Your task to perform on an android device: Open Google Chrome and click the shortcut for Amazon.com Image 0: 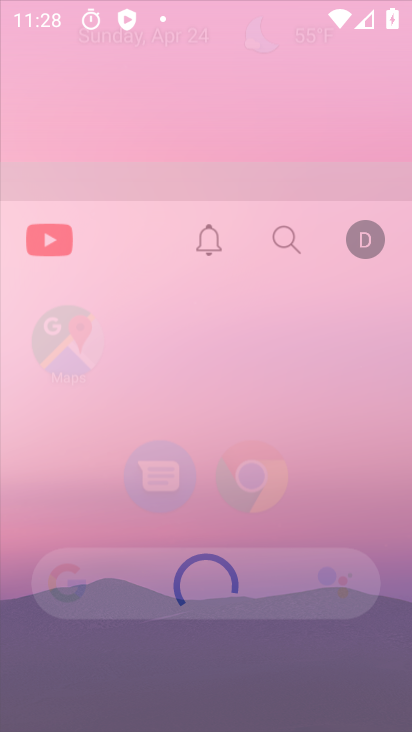
Step 0: click (296, 131)
Your task to perform on an android device: Open Google Chrome and click the shortcut for Amazon.com Image 1: 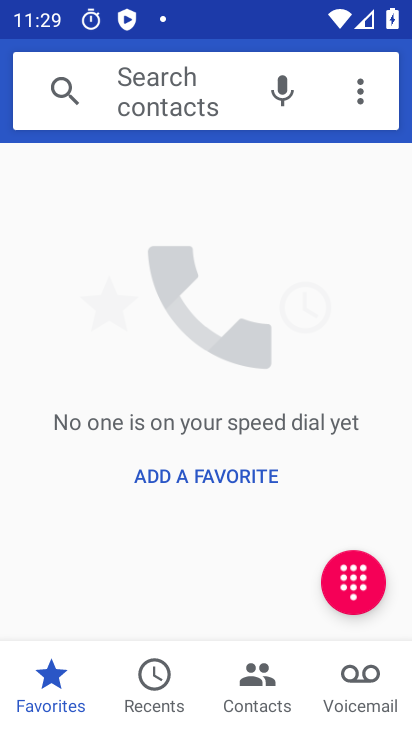
Step 1: press home button
Your task to perform on an android device: Open Google Chrome and click the shortcut for Amazon.com Image 2: 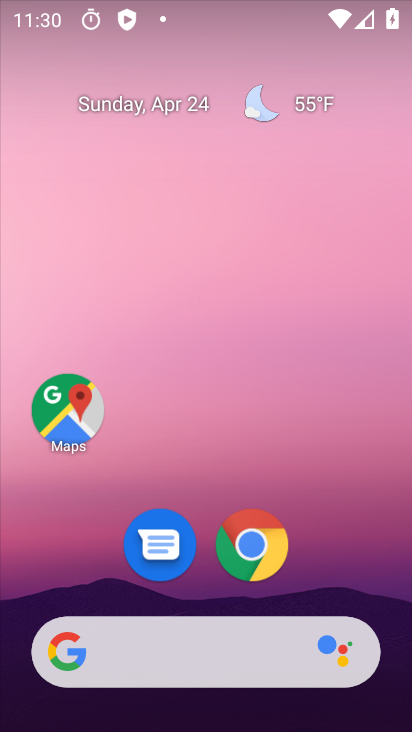
Step 2: drag from (277, 504) to (236, 239)
Your task to perform on an android device: Open Google Chrome and click the shortcut for Amazon.com Image 3: 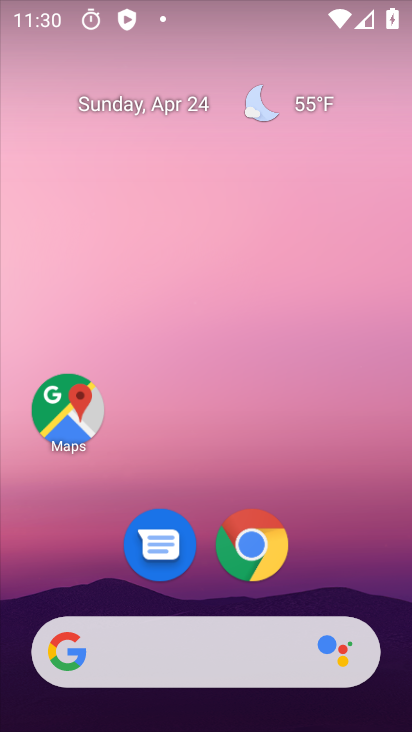
Step 3: drag from (232, 708) to (156, 53)
Your task to perform on an android device: Open Google Chrome and click the shortcut for Amazon.com Image 4: 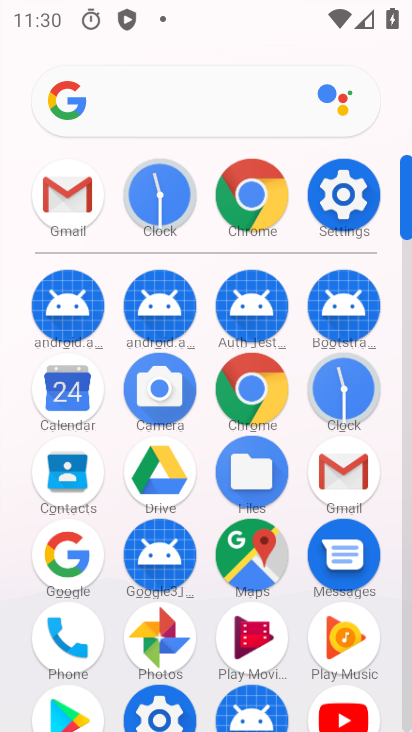
Step 4: click (259, 226)
Your task to perform on an android device: Open Google Chrome and click the shortcut for Amazon.com Image 5: 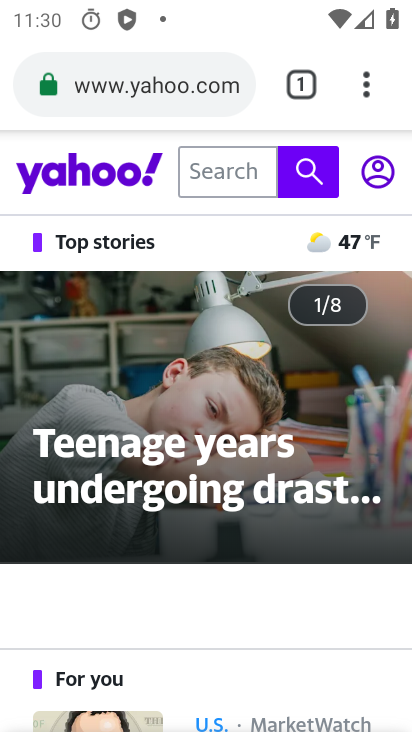
Step 5: click (298, 84)
Your task to perform on an android device: Open Google Chrome and click the shortcut for Amazon.com Image 6: 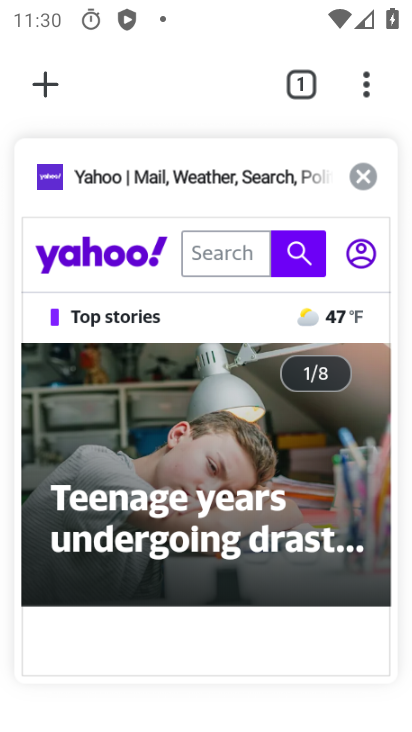
Step 6: click (49, 79)
Your task to perform on an android device: Open Google Chrome and click the shortcut for Amazon.com Image 7: 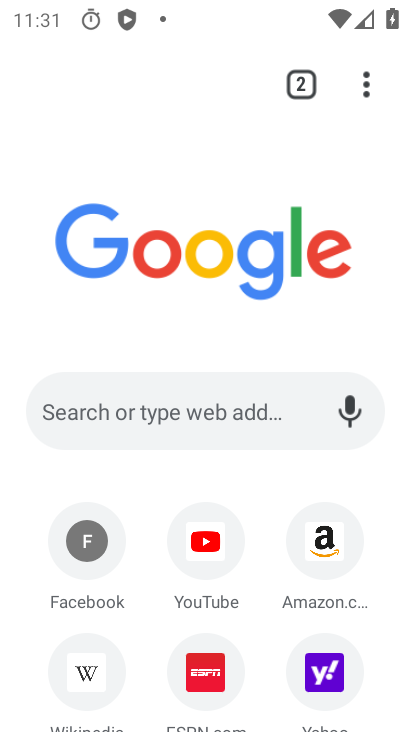
Step 7: click (314, 546)
Your task to perform on an android device: Open Google Chrome and click the shortcut for Amazon.com Image 8: 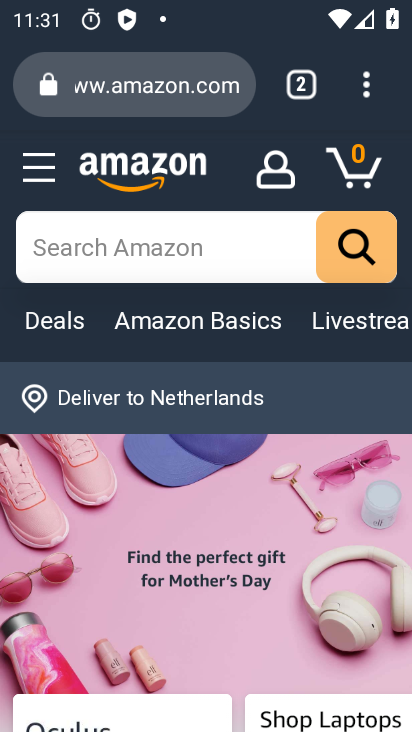
Step 8: click (362, 101)
Your task to perform on an android device: Open Google Chrome and click the shortcut for Amazon.com Image 9: 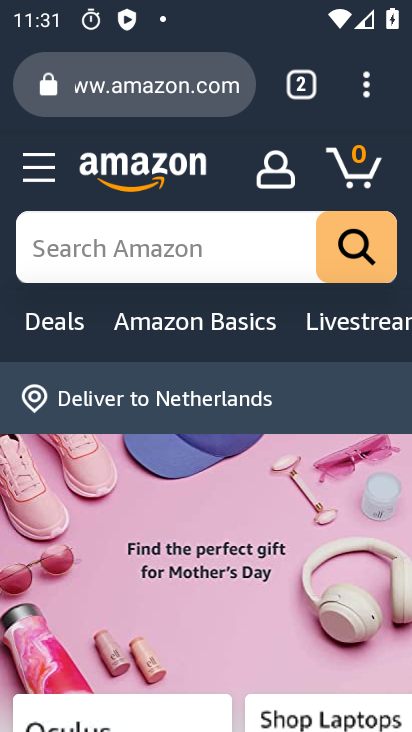
Step 9: drag from (333, 132) to (299, 178)
Your task to perform on an android device: Open Google Chrome and click the shortcut for Amazon.com Image 10: 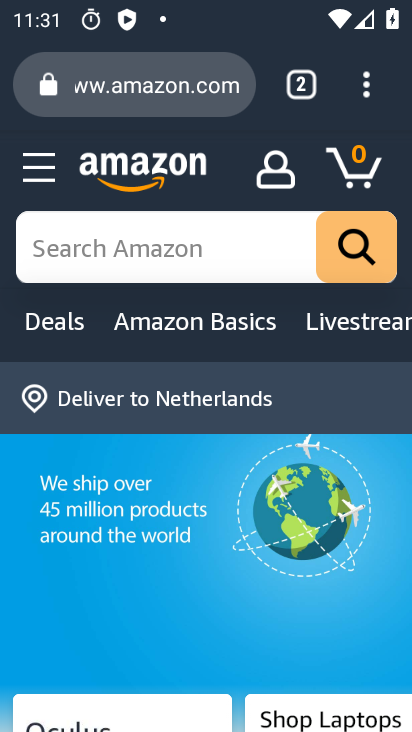
Step 10: click (362, 103)
Your task to perform on an android device: Open Google Chrome and click the shortcut for Amazon.com Image 11: 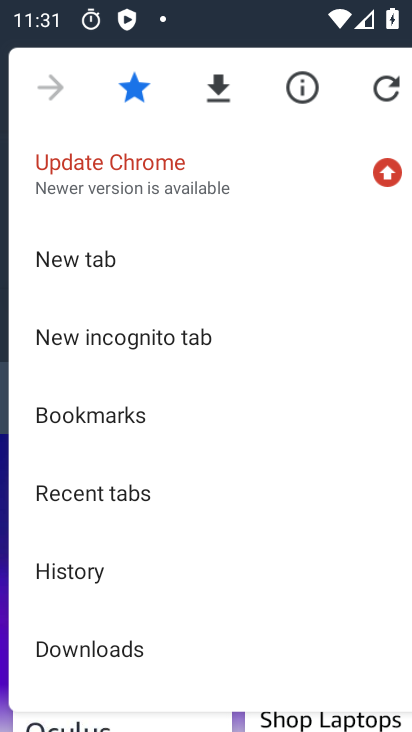
Step 11: click (185, 271)
Your task to perform on an android device: Open Google Chrome and click the shortcut for Amazon.com Image 12: 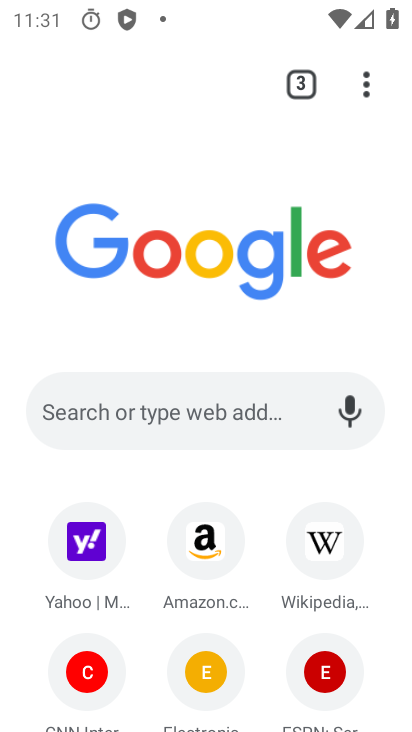
Step 12: click (365, 85)
Your task to perform on an android device: Open Google Chrome and click the shortcut for Amazon.com Image 13: 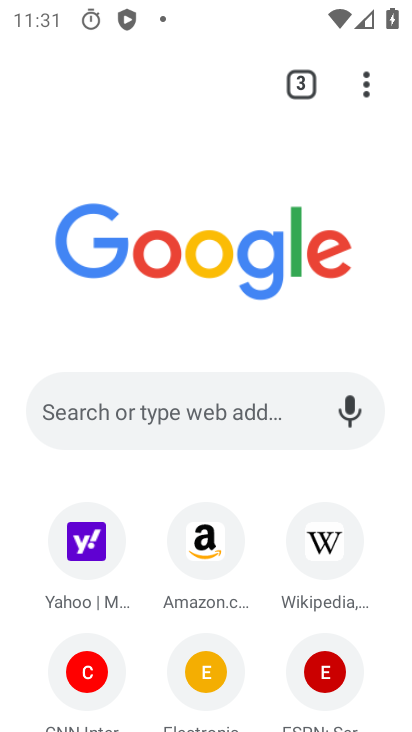
Step 13: click (300, 87)
Your task to perform on an android device: Open Google Chrome and click the shortcut for Amazon.com Image 14: 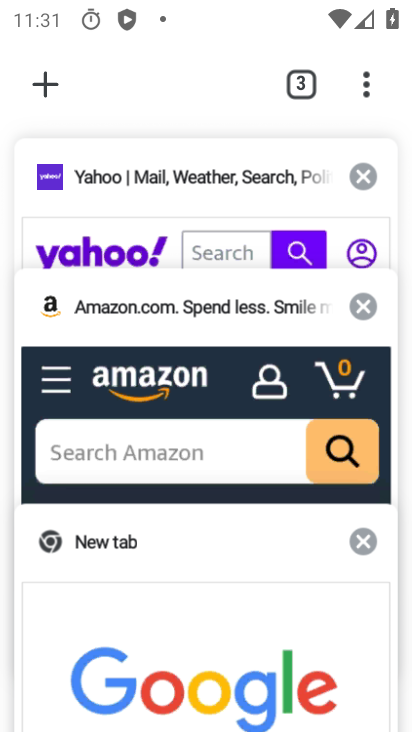
Step 14: click (178, 347)
Your task to perform on an android device: Open Google Chrome and click the shortcut for Amazon.com Image 15: 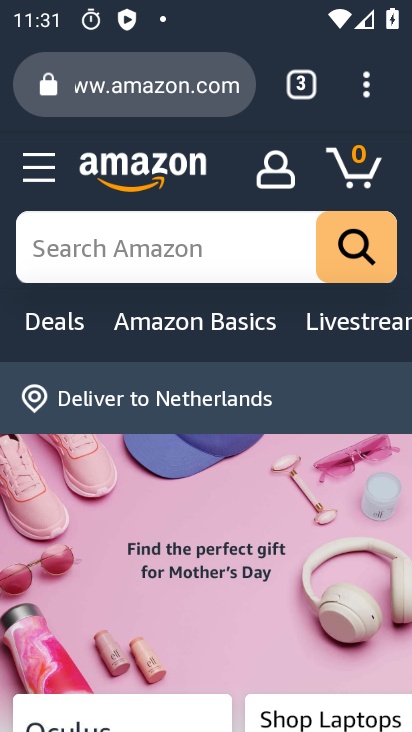
Step 15: click (362, 87)
Your task to perform on an android device: Open Google Chrome and click the shortcut for Amazon.com Image 16: 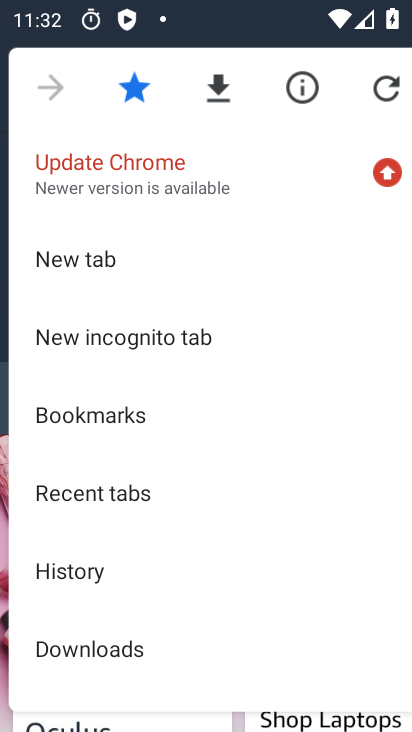
Step 16: drag from (181, 568) to (266, 266)
Your task to perform on an android device: Open Google Chrome and click the shortcut for Amazon.com Image 17: 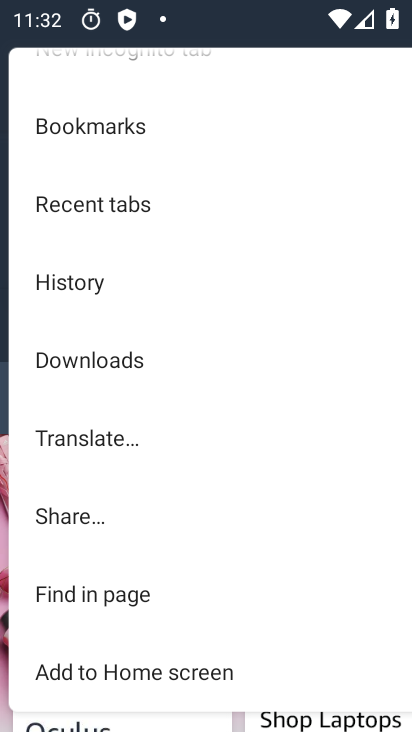
Step 17: click (145, 670)
Your task to perform on an android device: Open Google Chrome and click the shortcut for Amazon.com Image 18: 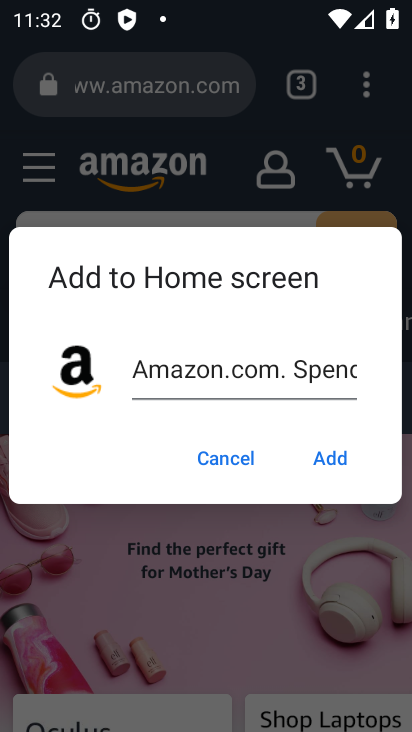
Step 18: click (309, 465)
Your task to perform on an android device: Open Google Chrome and click the shortcut for Amazon.com Image 19: 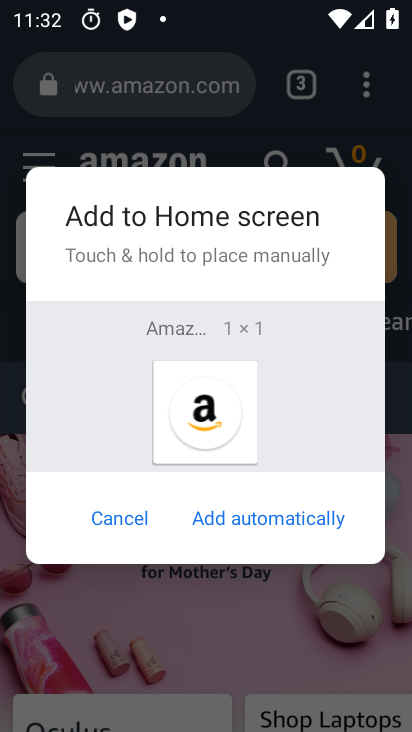
Step 19: click (283, 509)
Your task to perform on an android device: Open Google Chrome and click the shortcut for Amazon.com Image 20: 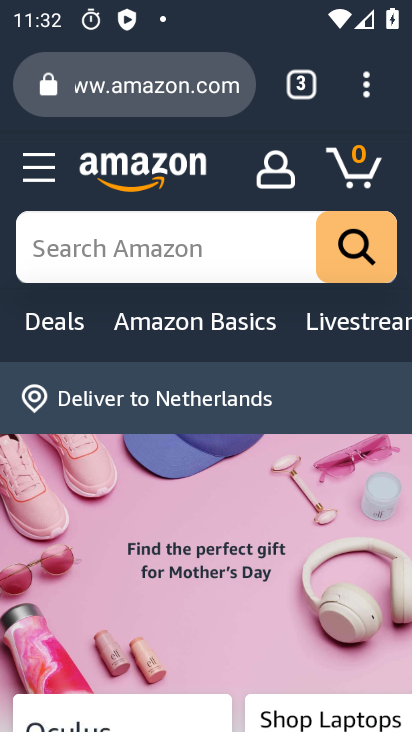
Step 20: task complete